Your task to perform on an android device: Open internet settings Image 0: 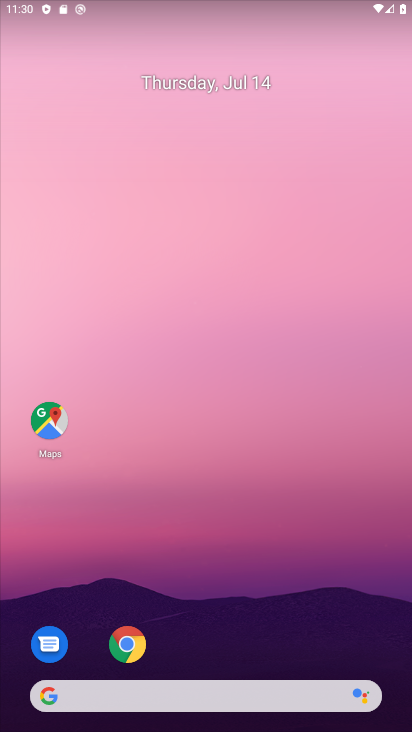
Step 0: drag from (381, 661) to (222, 28)
Your task to perform on an android device: Open internet settings Image 1: 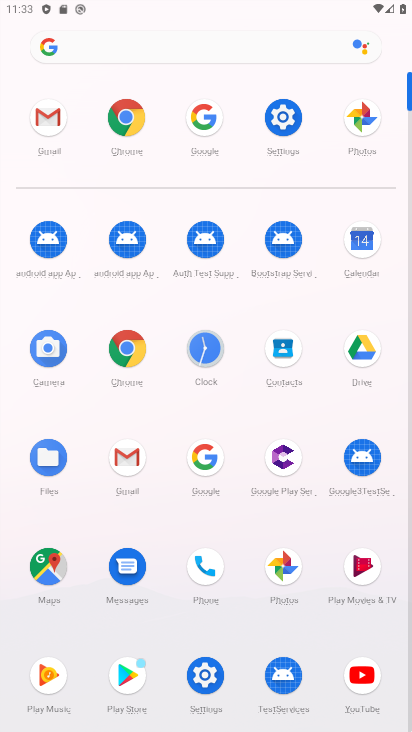
Step 1: click (202, 680)
Your task to perform on an android device: Open internet settings Image 2: 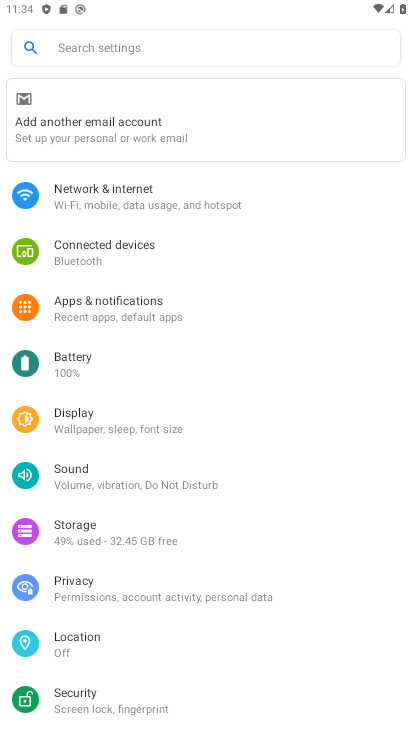
Step 2: click (155, 181)
Your task to perform on an android device: Open internet settings Image 3: 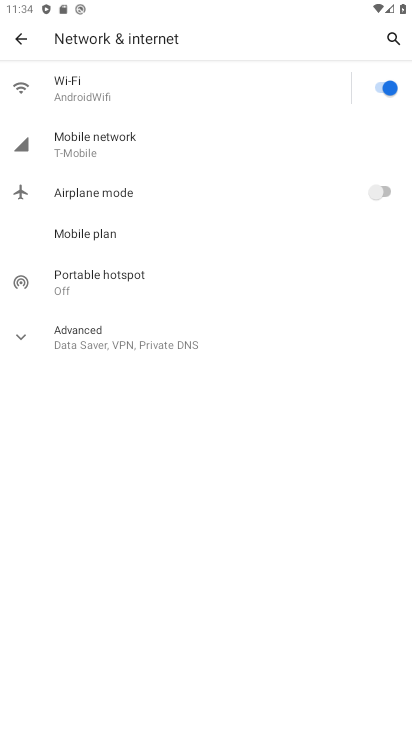
Step 3: task complete